Your task to perform on an android device: turn on data saver in the chrome app Image 0: 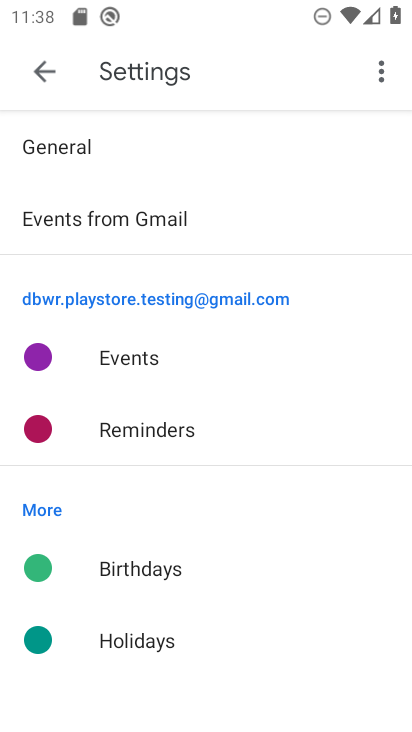
Step 0: press home button
Your task to perform on an android device: turn on data saver in the chrome app Image 1: 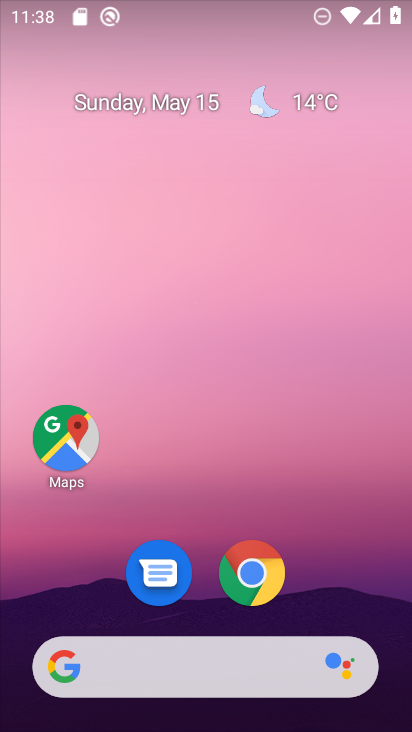
Step 1: click (255, 570)
Your task to perform on an android device: turn on data saver in the chrome app Image 2: 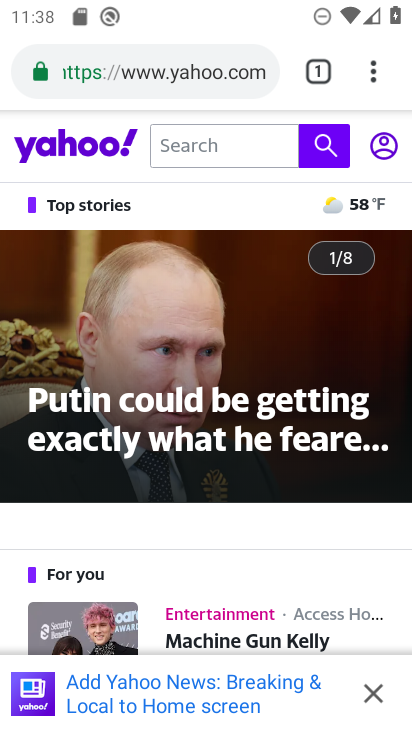
Step 2: click (375, 67)
Your task to perform on an android device: turn on data saver in the chrome app Image 3: 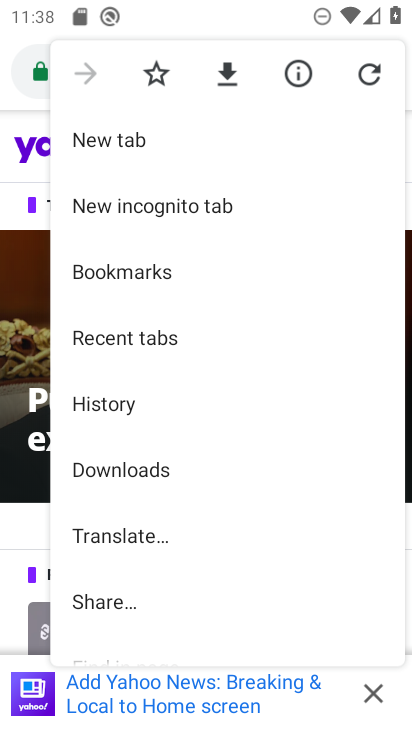
Step 3: drag from (229, 552) to (149, 251)
Your task to perform on an android device: turn on data saver in the chrome app Image 4: 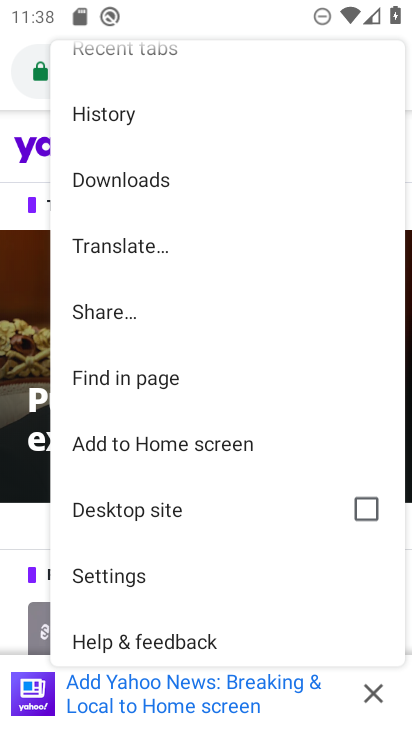
Step 4: click (114, 567)
Your task to perform on an android device: turn on data saver in the chrome app Image 5: 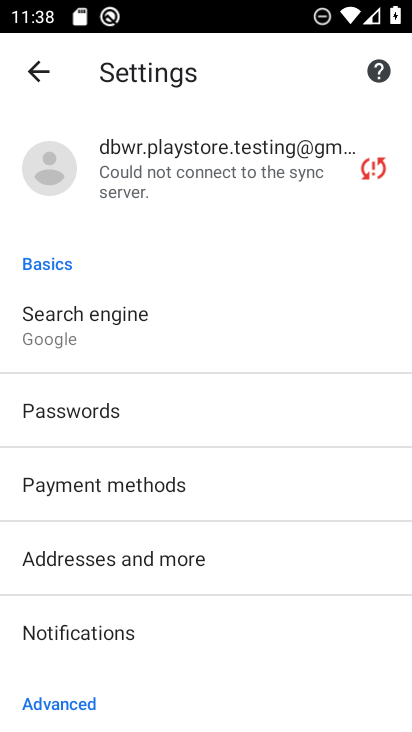
Step 5: drag from (235, 500) to (158, 232)
Your task to perform on an android device: turn on data saver in the chrome app Image 6: 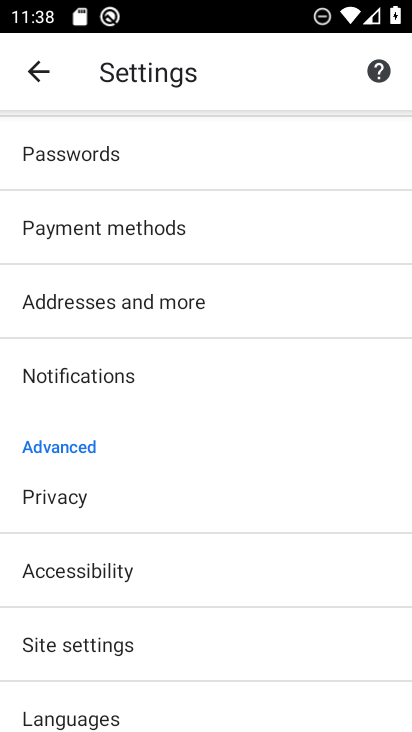
Step 6: drag from (173, 392) to (165, 313)
Your task to perform on an android device: turn on data saver in the chrome app Image 7: 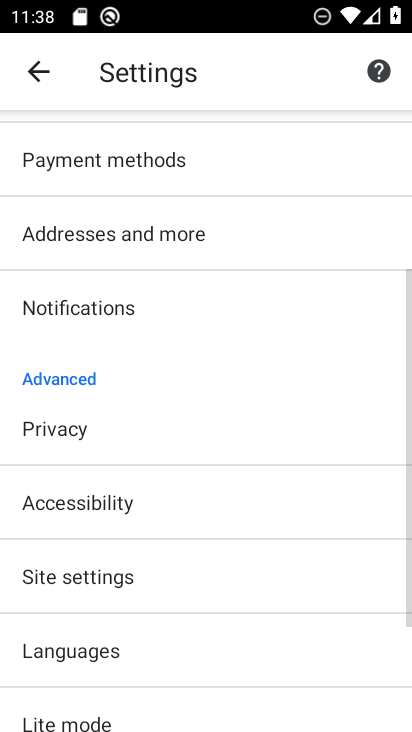
Step 7: drag from (163, 595) to (177, 372)
Your task to perform on an android device: turn on data saver in the chrome app Image 8: 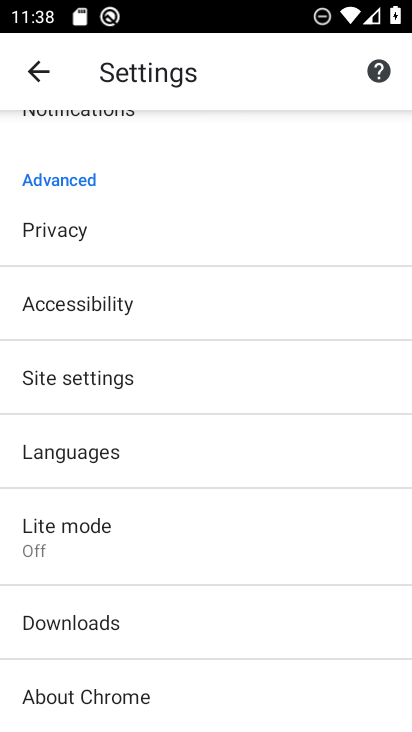
Step 8: click (71, 532)
Your task to perform on an android device: turn on data saver in the chrome app Image 9: 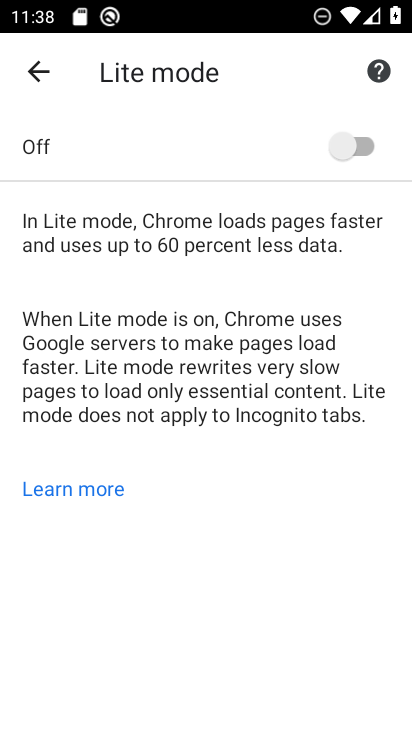
Step 9: click (346, 149)
Your task to perform on an android device: turn on data saver in the chrome app Image 10: 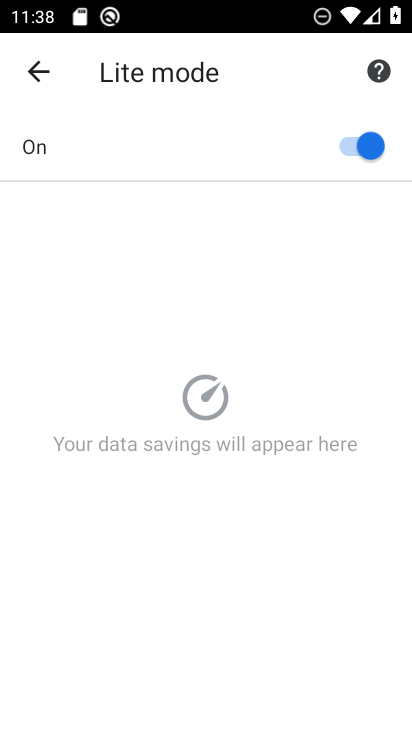
Step 10: task complete